Your task to perform on an android device: turn off javascript in the chrome app Image 0: 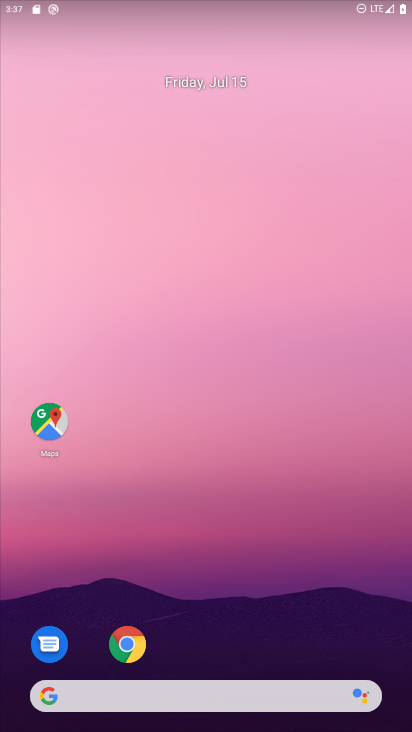
Step 0: press home button
Your task to perform on an android device: turn off javascript in the chrome app Image 1: 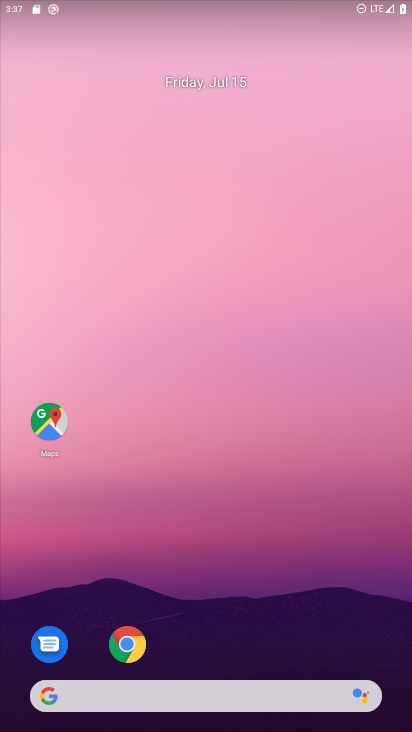
Step 1: drag from (40, 599) to (305, 21)
Your task to perform on an android device: turn off javascript in the chrome app Image 2: 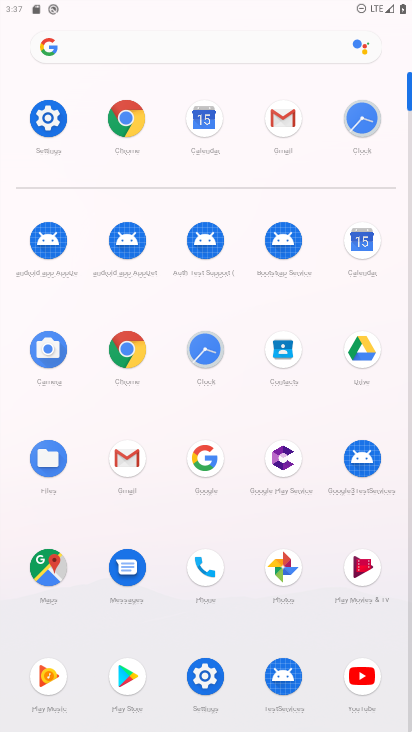
Step 2: click (61, 126)
Your task to perform on an android device: turn off javascript in the chrome app Image 3: 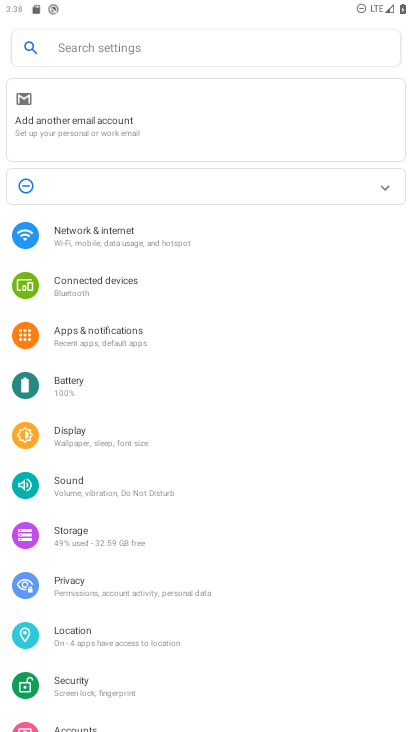
Step 3: task complete